Your task to perform on an android device: check out phone information Image 0: 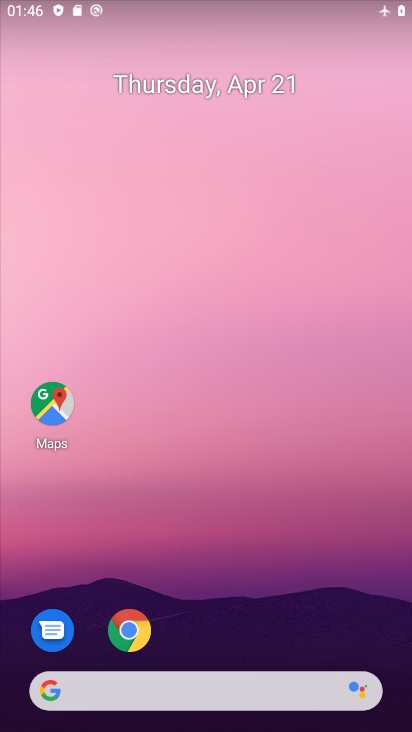
Step 0: drag from (285, 647) to (295, 184)
Your task to perform on an android device: check out phone information Image 1: 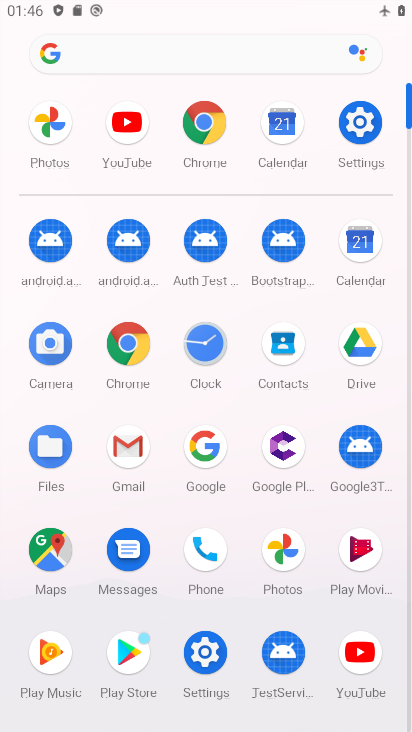
Step 1: click (354, 142)
Your task to perform on an android device: check out phone information Image 2: 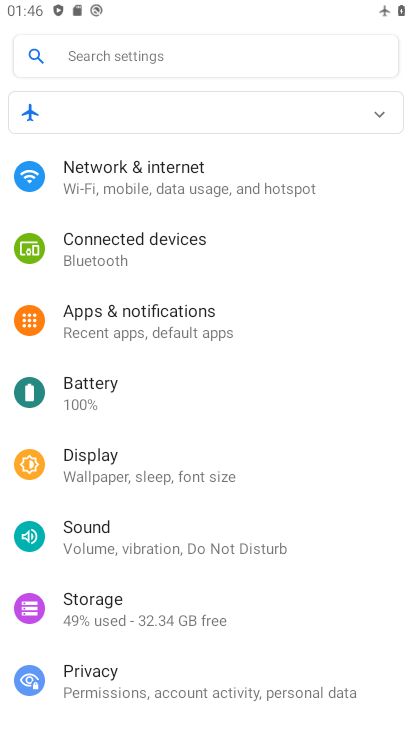
Step 2: drag from (232, 575) to (397, 39)
Your task to perform on an android device: check out phone information Image 3: 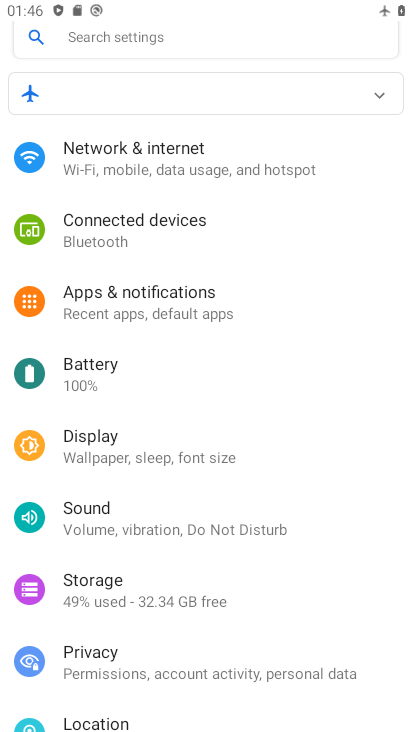
Step 3: drag from (290, 602) to (305, 142)
Your task to perform on an android device: check out phone information Image 4: 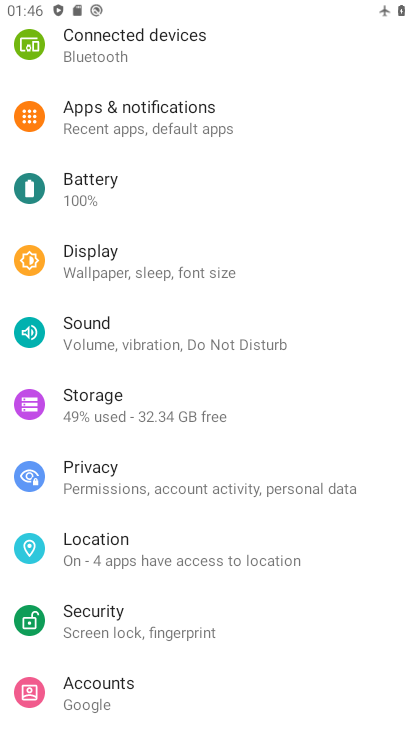
Step 4: drag from (195, 674) to (219, 104)
Your task to perform on an android device: check out phone information Image 5: 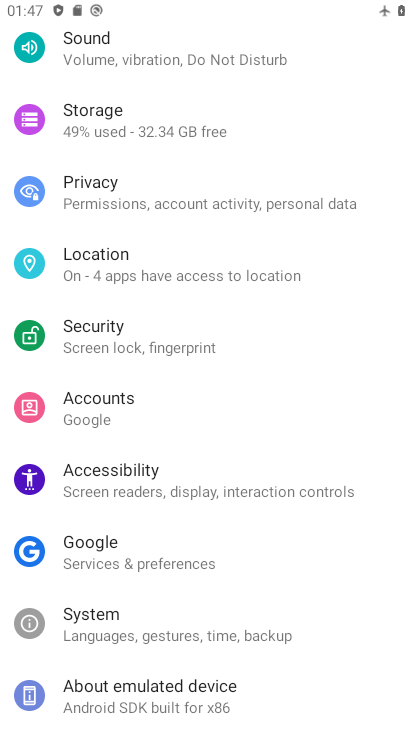
Step 5: drag from (186, 680) to (196, 385)
Your task to perform on an android device: check out phone information Image 6: 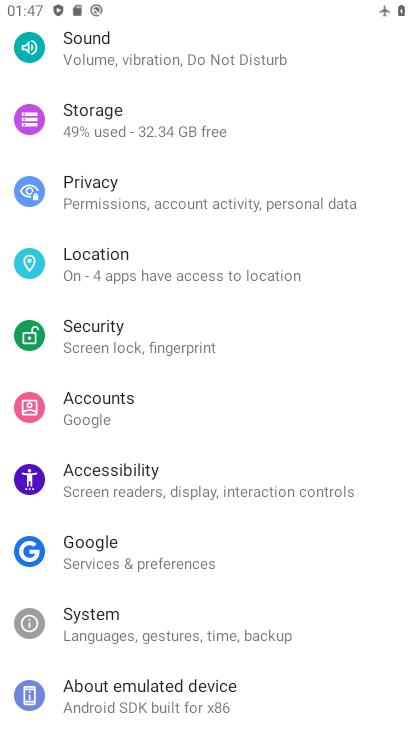
Step 6: click (161, 687)
Your task to perform on an android device: check out phone information Image 7: 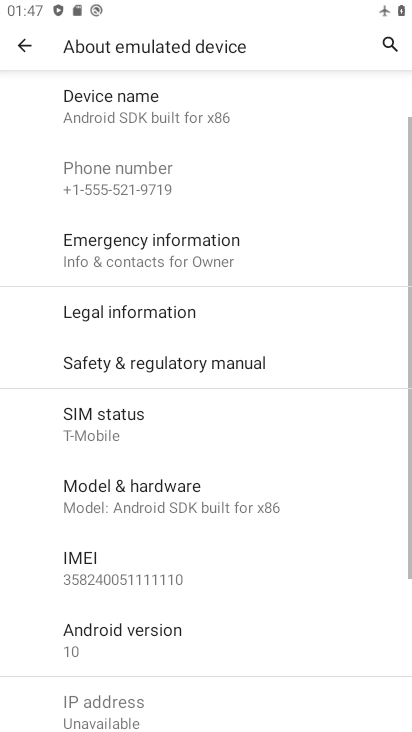
Step 7: task complete